Your task to perform on an android device: Go to sound settings Image 0: 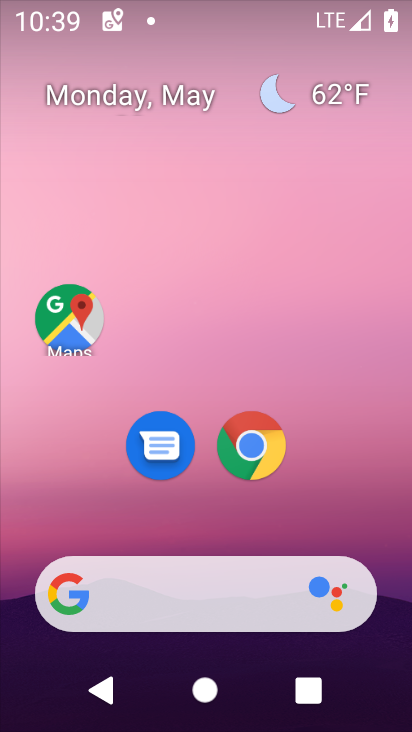
Step 0: drag from (396, 626) to (240, 0)
Your task to perform on an android device: Go to sound settings Image 1: 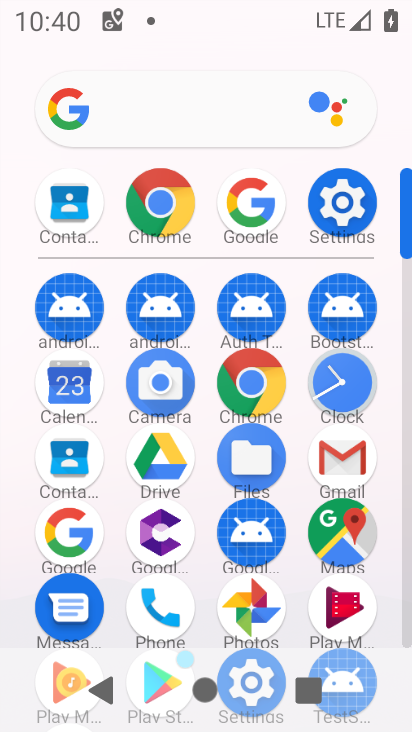
Step 1: click (323, 197)
Your task to perform on an android device: Go to sound settings Image 2: 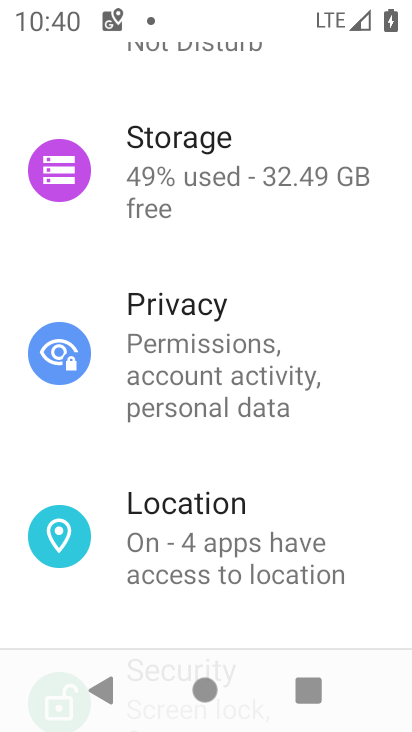
Step 2: drag from (165, 185) to (205, 663)
Your task to perform on an android device: Go to sound settings Image 3: 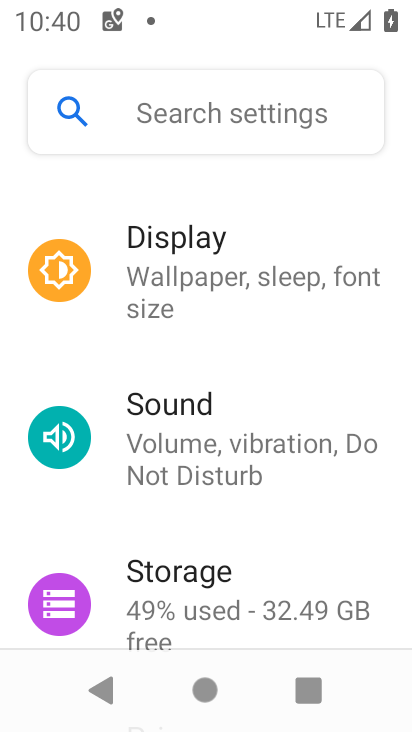
Step 3: click (193, 443)
Your task to perform on an android device: Go to sound settings Image 4: 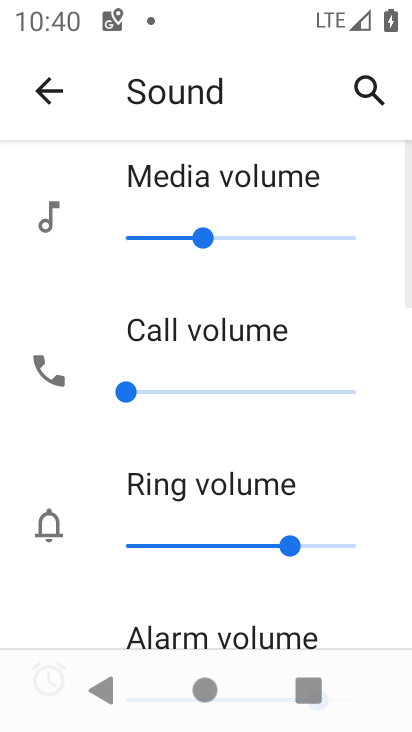
Step 4: task complete